Your task to perform on an android device: change notification settings in the gmail app Image 0: 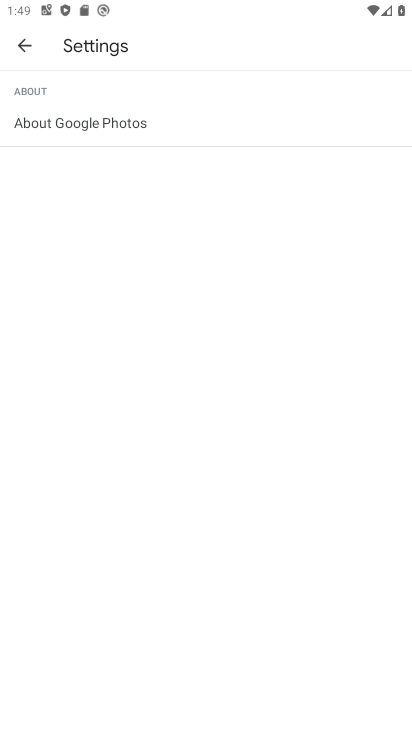
Step 0: press home button
Your task to perform on an android device: change notification settings in the gmail app Image 1: 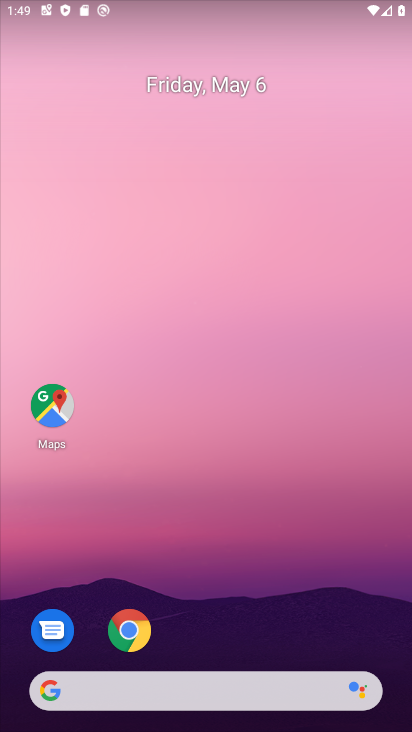
Step 1: drag from (222, 687) to (259, 271)
Your task to perform on an android device: change notification settings in the gmail app Image 2: 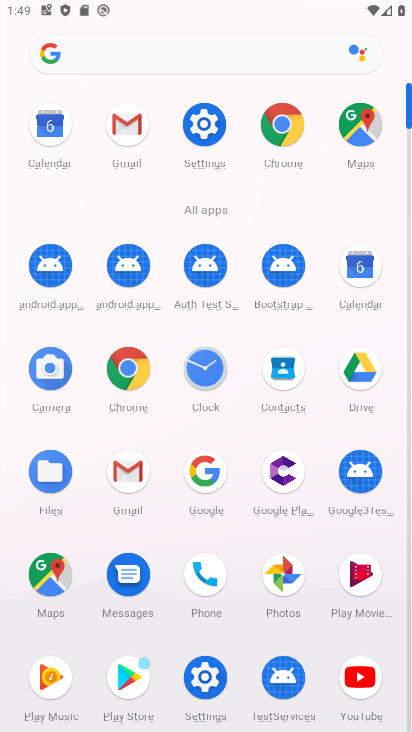
Step 2: click (138, 472)
Your task to perform on an android device: change notification settings in the gmail app Image 3: 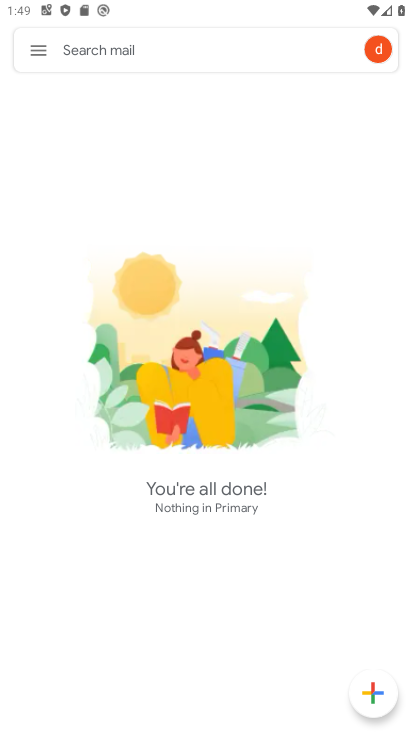
Step 3: click (31, 58)
Your task to perform on an android device: change notification settings in the gmail app Image 4: 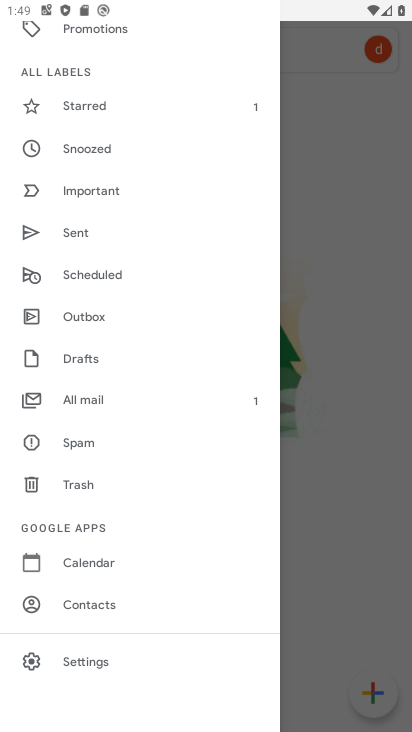
Step 4: click (91, 660)
Your task to perform on an android device: change notification settings in the gmail app Image 5: 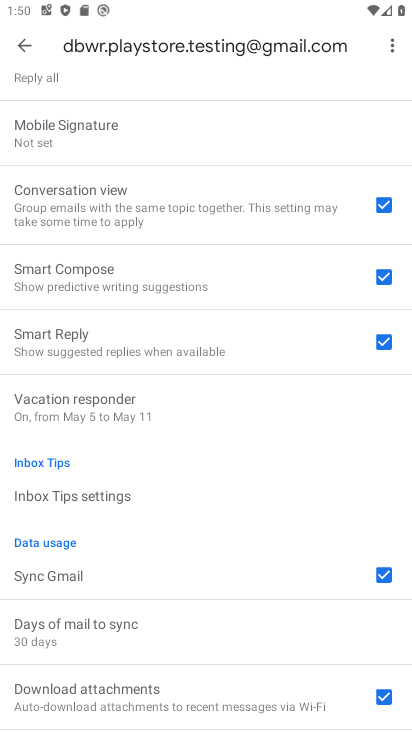
Step 5: drag from (91, 660) to (96, 205)
Your task to perform on an android device: change notification settings in the gmail app Image 6: 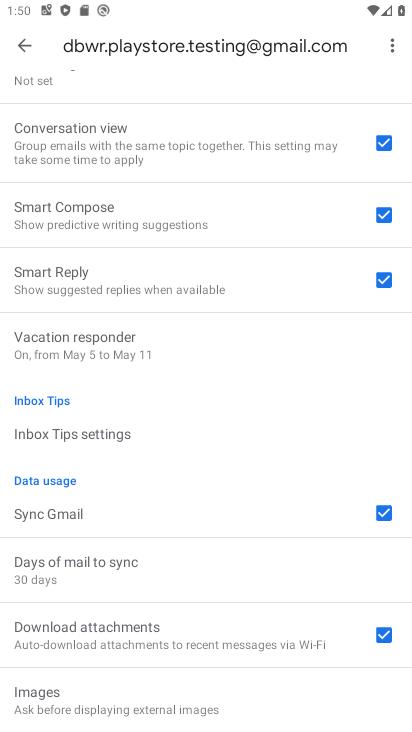
Step 6: drag from (135, 574) to (138, 17)
Your task to perform on an android device: change notification settings in the gmail app Image 7: 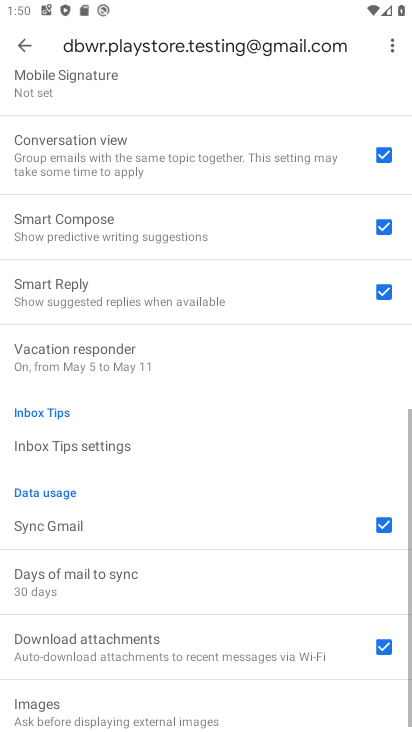
Step 7: drag from (163, 223) to (182, 573)
Your task to perform on an android device: change notification settings in the gmail app Image 8: 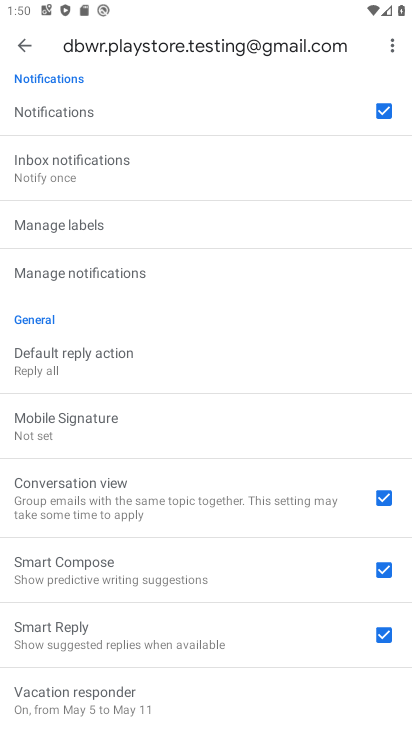
Step 8: click (132, 277)
Your task to perform on an android device: change notification settings in the gmail app Image 9: 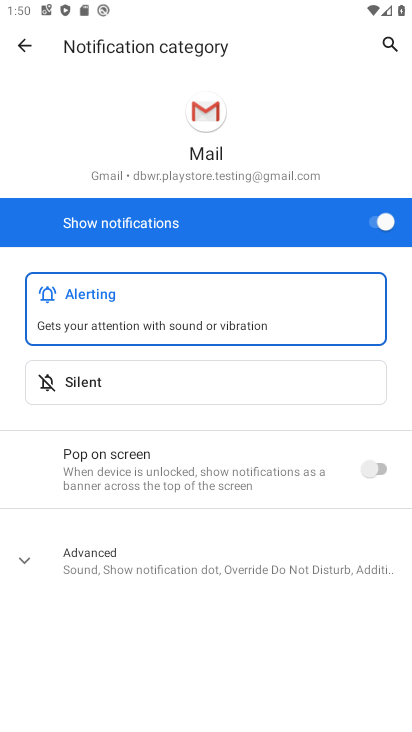
Step 9: click (379, 218)
Your task to perform on an android device: change notification settings in the gmail app Image 10: 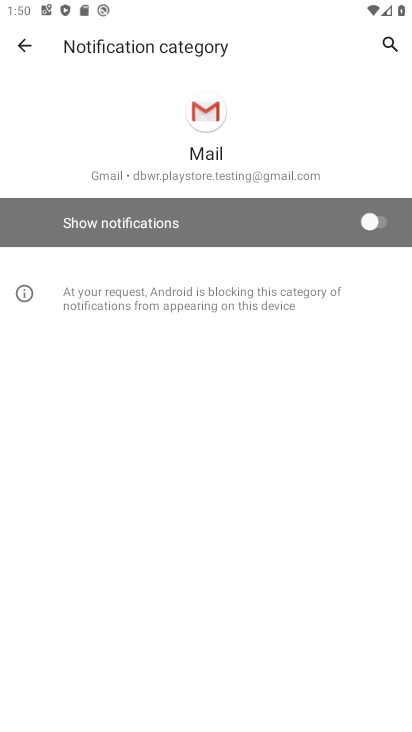
Step 10: task complete